Your task to perform on an android device: turn on the 24-hour format for clock Image 0: 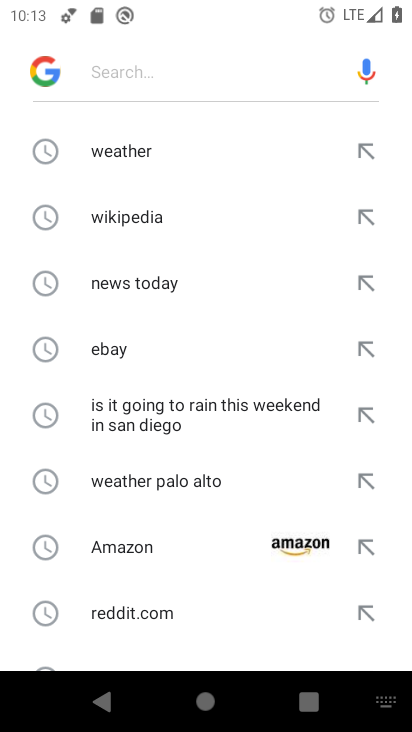
Step 0: press home button
Your task to perform on an android device: turn on the 24-hour format for clock Image 1: 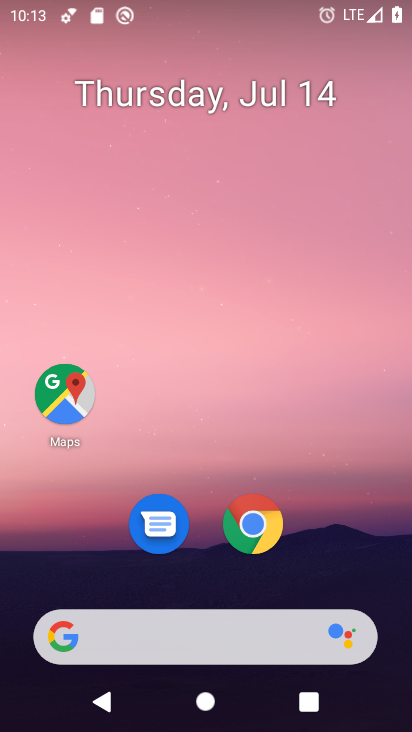
Step 1: drag from (316, 368) to (283, 68)
Your task to perform on an android device: turn on the 24-hour format for clock Image 2: 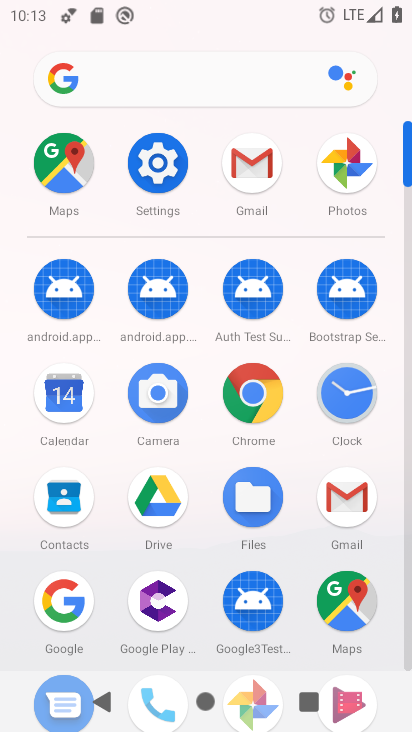
Step 2: click (349, 393)
Your task to perform on an android device: turn on the 24-hour format for clock Image 3: 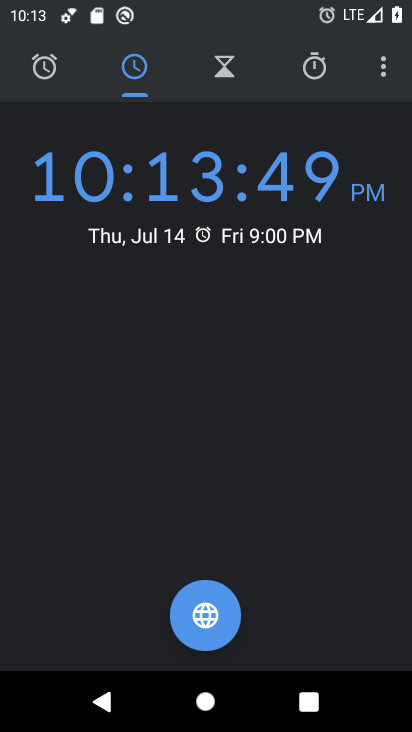
Step 3: click (386, 71)
Your task to perform on an android device: turn on the 24-hour format for clock Image 4: 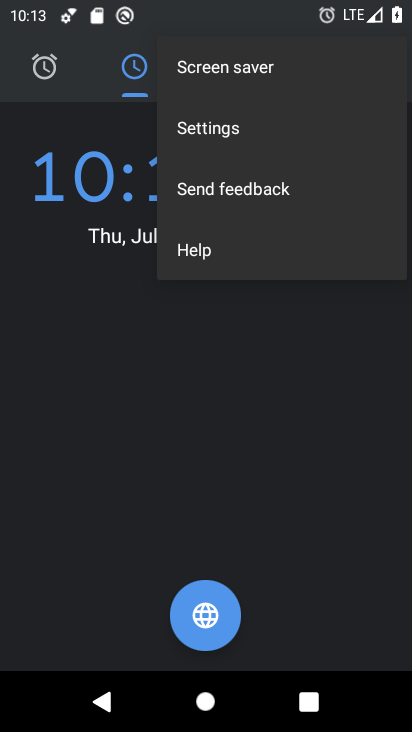
Step 4: click (267, 131)
Your task to perform on an android device: turn on the 24-hour format for clock Image 5: 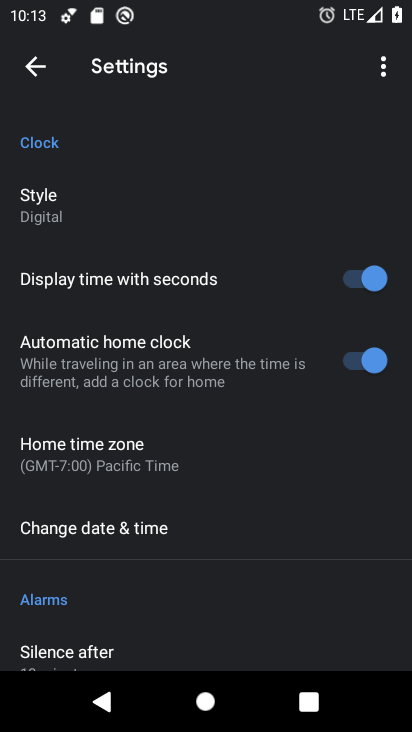
Step 5: click (256, 530)
Your task to perform on an android device: turn on the 24-hour format for clock Image 6: 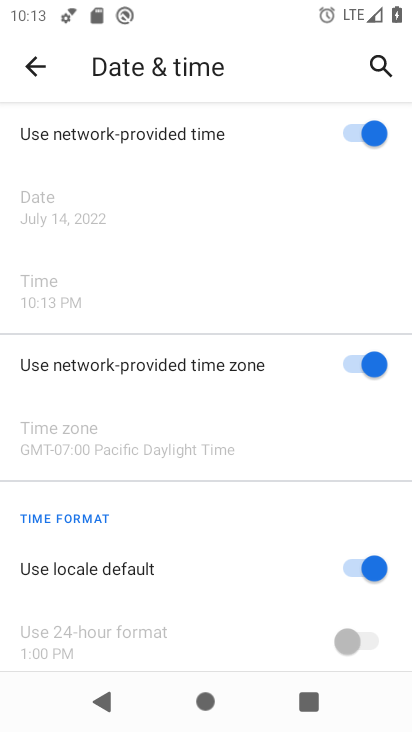
Step 6: click (353, 569)
Your task to perform on an android device: turn on the 24-hour format for clock Image 7: 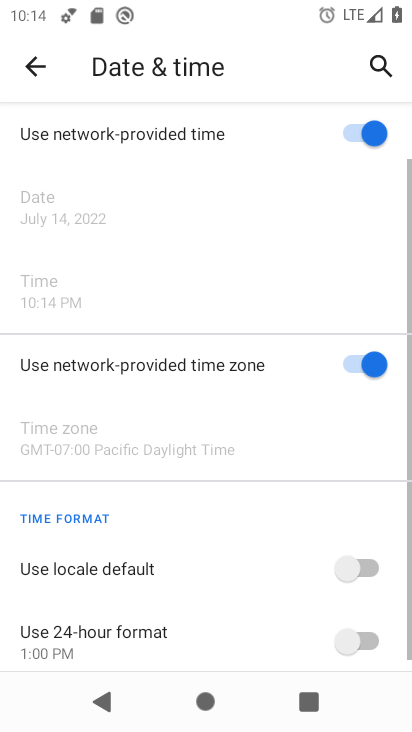
Step 7: click (365, 631)
Your task to perform on an android device: turn on the 24-hour format for clock Image 8: 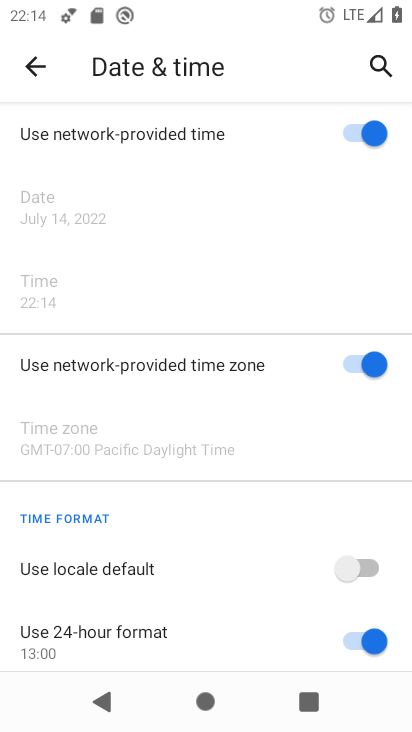
Step 8: task complete